Your task to perform on an android device: turn smart compose on in the gmail app Image 0: 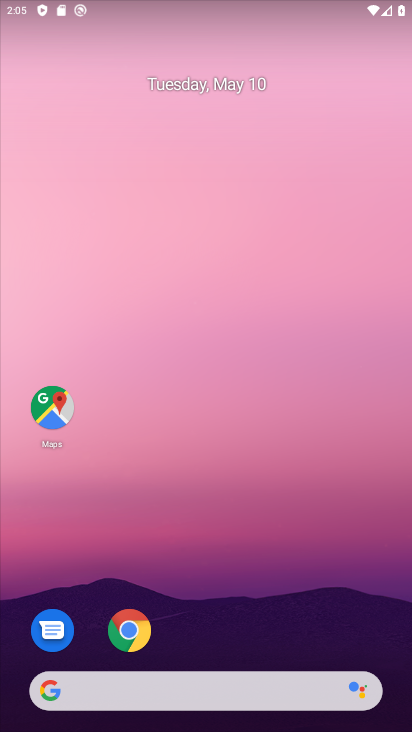
Step 0: press back button
Your task to perform on an android device: turn smart compose on in the gmail app Image 1: 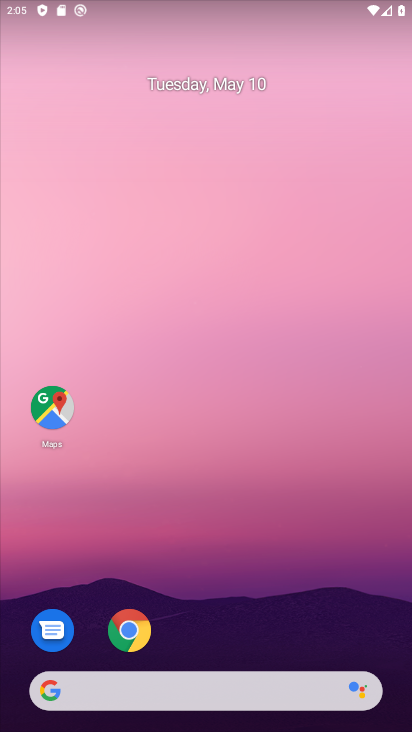
Step 1: drag from (277, 584) to (112, 10)
Your task to perform on an android device: turn smart compose on in the gmail app Image 2: 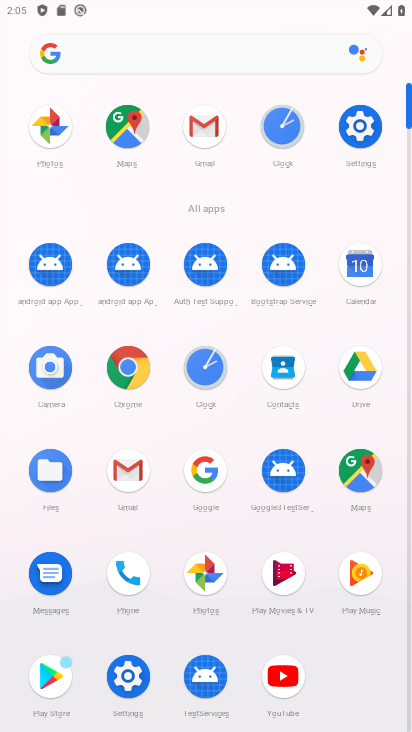
Step 2: click (137, 473)
Your task to perform on an android device: turn smart compose on in the gmail app Image 3: 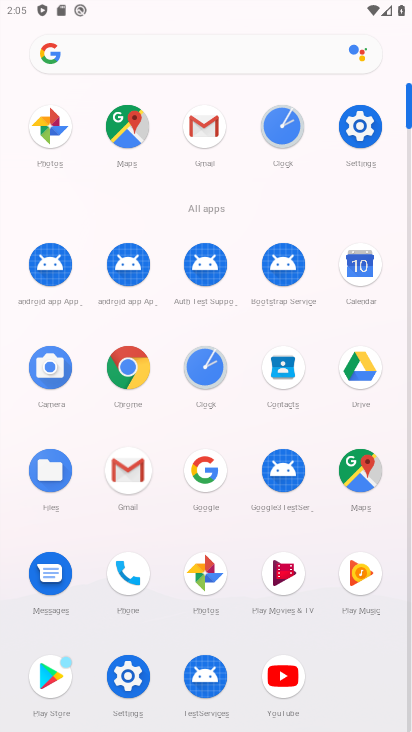
Step 3: click (120, 476)
Your task to perform on an android device: turn smart compose on in the gmail app Image 4: 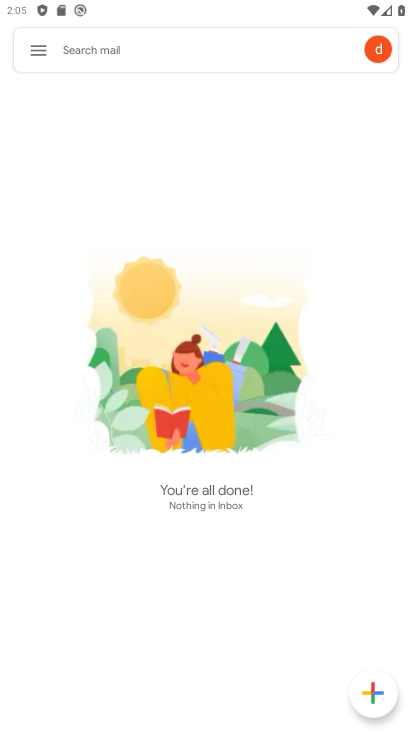
Step 4: click (32, 51)
Your task to perform on an android device: turn smart compose on in the gmail app Image 5: 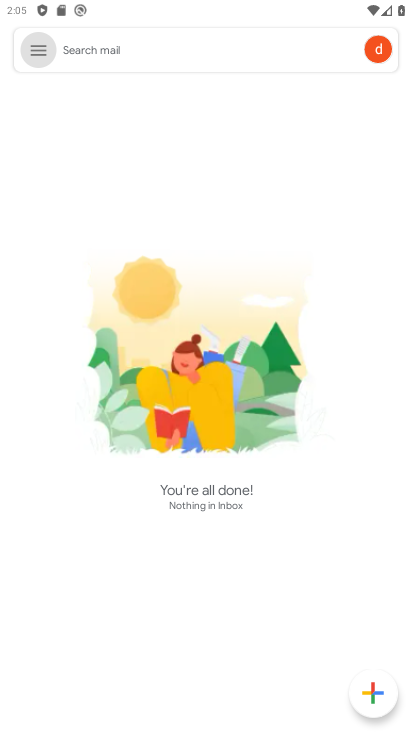
Step 5: click (32, 52)
Your task to perform on an android device: turn smart compose on in the gmail app Image 6: 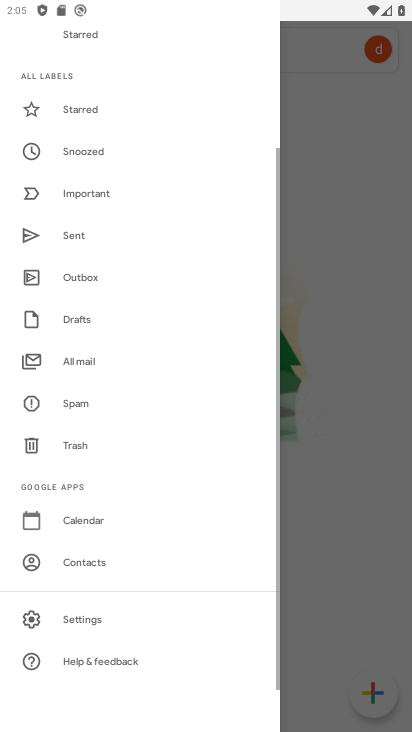
Step 6: click (32, 52)
Your task to perform on an android device: turn smart compose on in the gmail app Image 7: 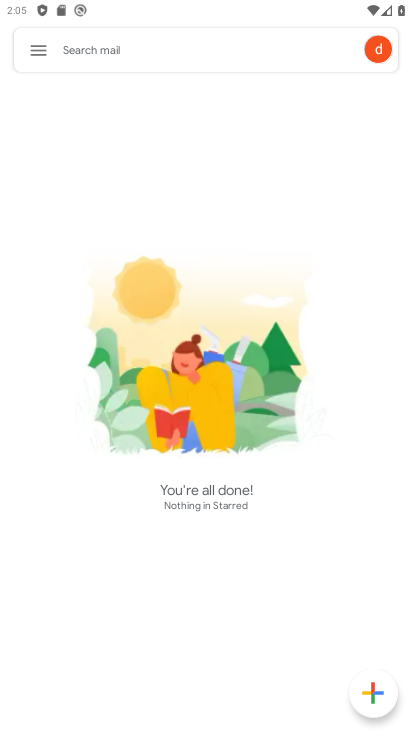
Step 7: click (33, 47)
Your task to perform on an android device: turn smart compose on in the gmail app Image 8: 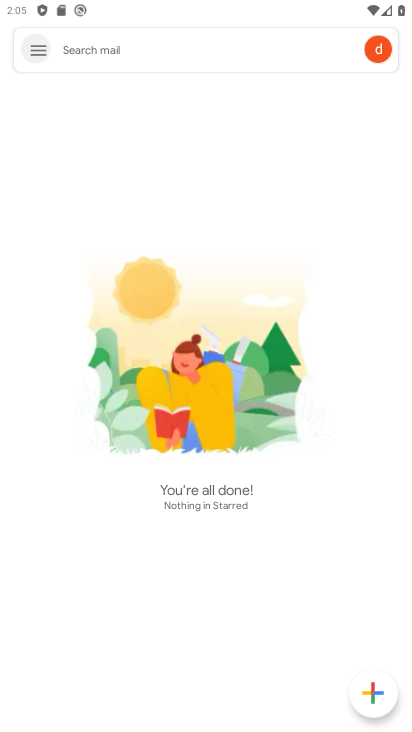
Step 8: click (33, 52)
Your task to perform on an android device: turn smart compose on in the gmail app Image 9: 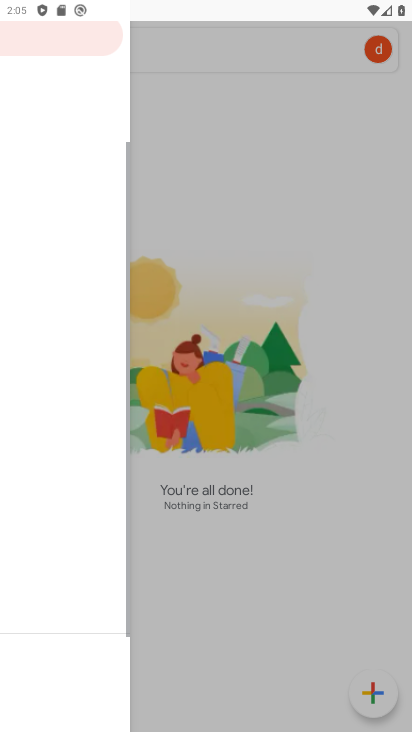
Step 9: click (30, 66)
Your task to perform on an android device: turn smart compose on in the gmail app Image 10: 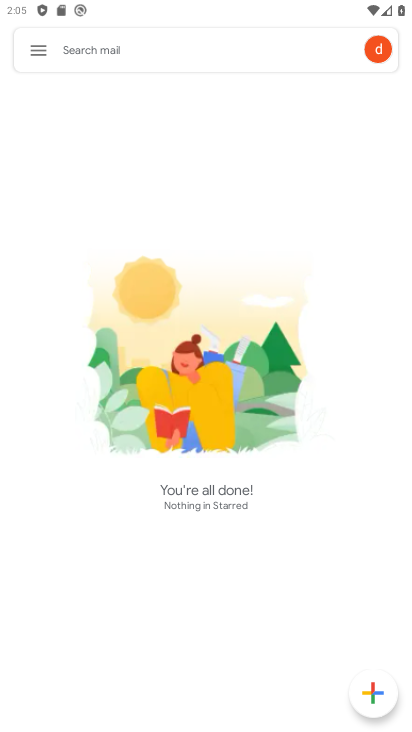
Step 10: click (34, 53)
Your task to perform on an android device: turn smart compose on in the gmail app Image 11: 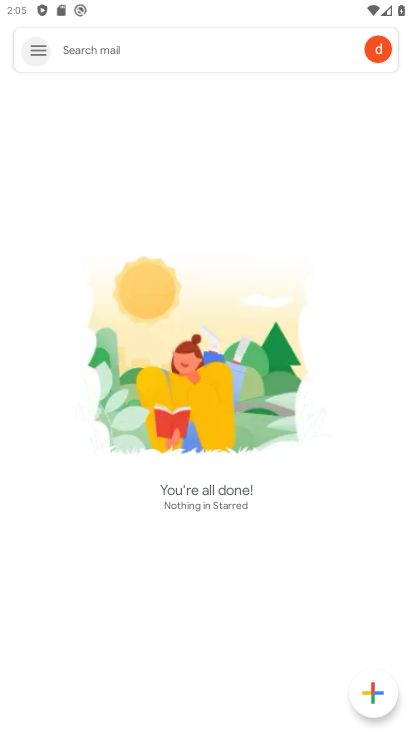
Step 11: click (35, 53)
Your task to perform on an android device: turn smart compose on in the gmail app Image 12: 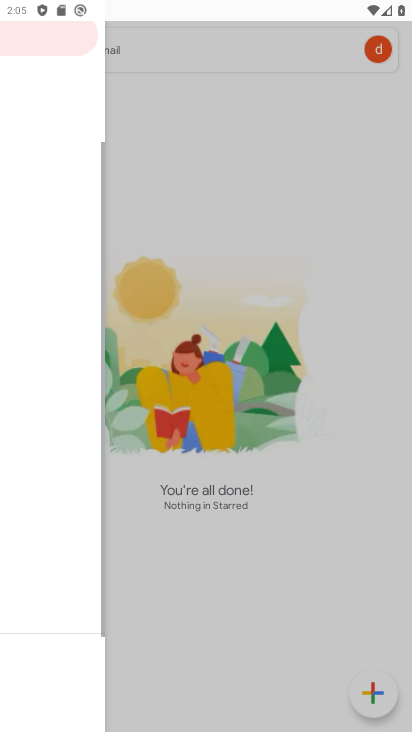
Step 12: click (35, 53)
Your task to perform on an android device: turn smart compose on in the gmail app Image 13: 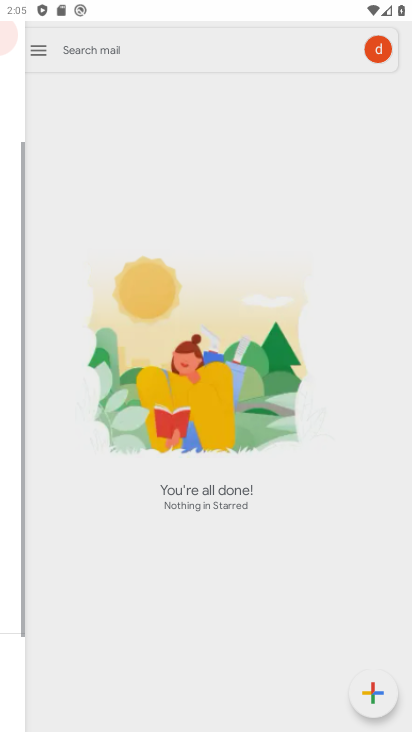
Step 13: click (36, 54)
Your task to perform on an android device: turn smart compose on in the gmail app Image 14: 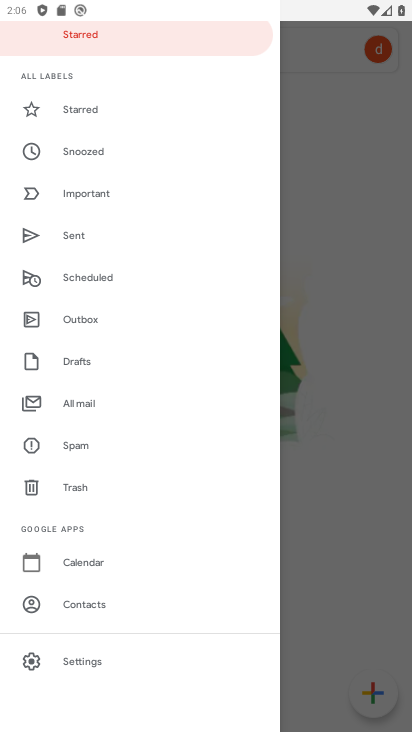
Step 14: click (93, 662)
Your task to perform on an android device: turn smart compose on in the gmail app Image 15: 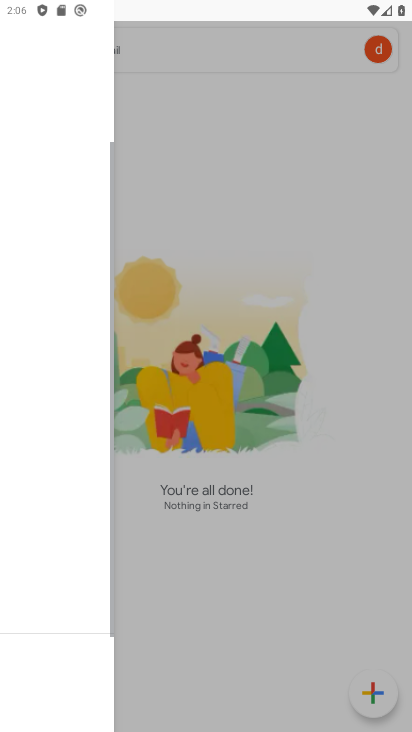
Step 15: click (93, 662)
Your task to perform on an android device: turn smart compose on in the gmail app Image 16: 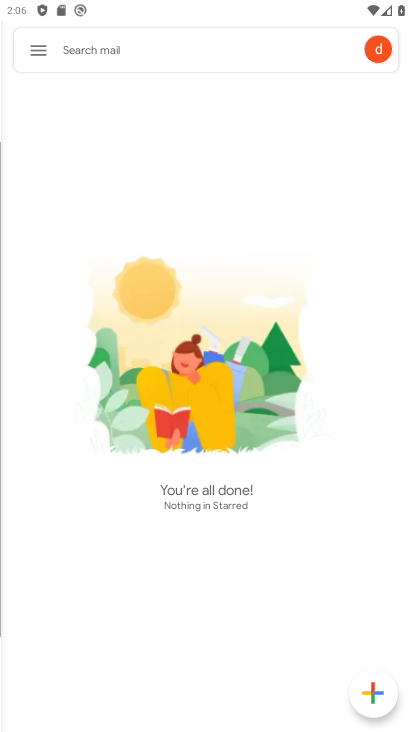
Step 16: click (92, 665)
Your task to perform on an android device: turn smart compose on in the gmail app Image 17: 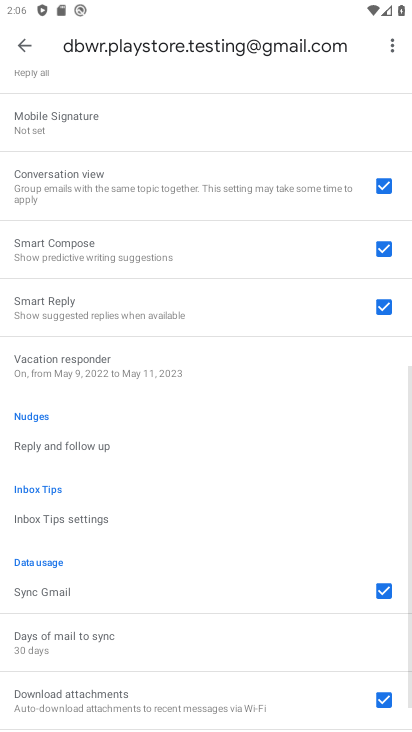
Step 17: task complete